Your task to perform on an android device: Show me the best rated coffee table on Ikea Image 0: 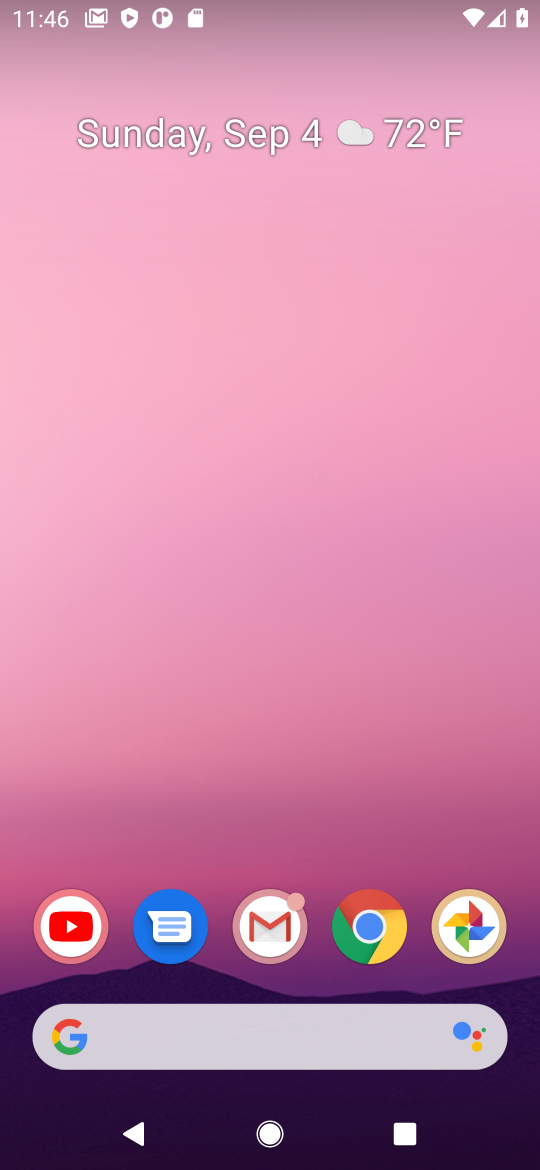
Step 0: press home button
Your task to perform on an android device: Show me the best rated coffee table on Ikea Image 1: 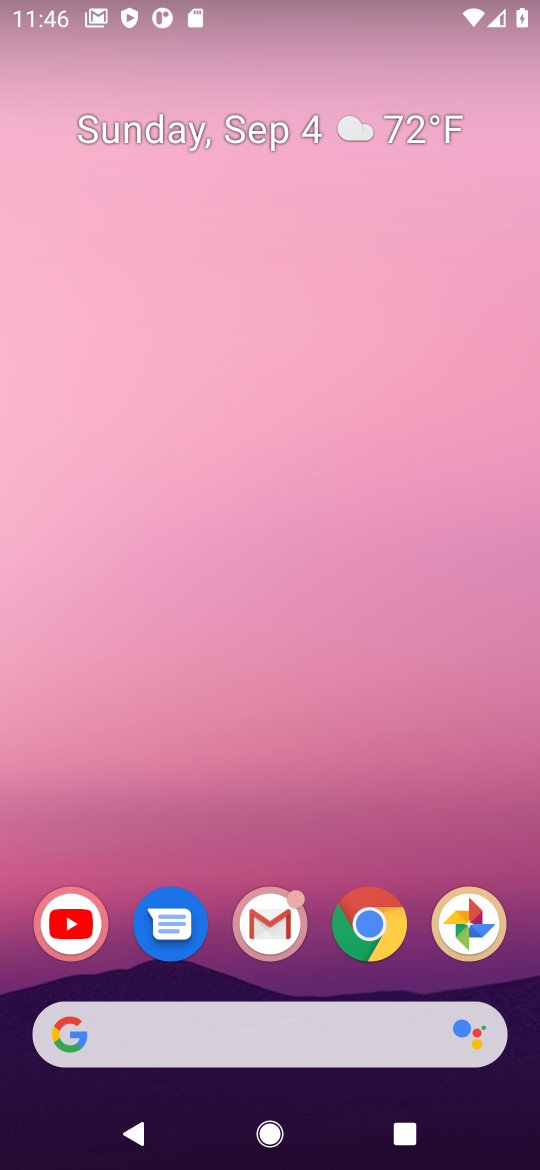
Step 1: drag from (323, 878) to (455, 808)
Your task to perform on an android device: Show me the best rated coffee table on Ikea Image 2: 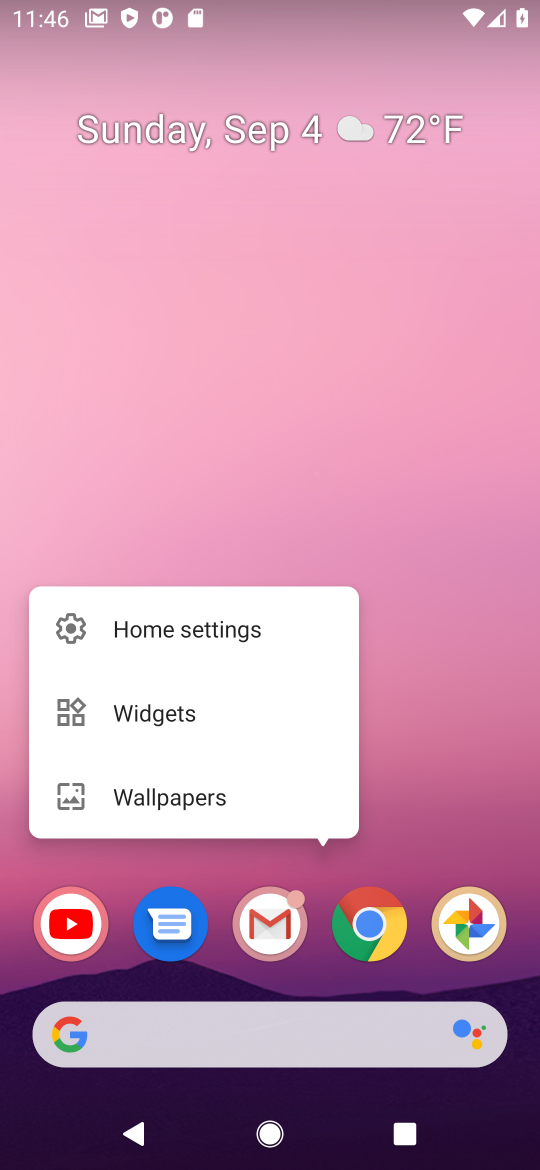
Step 2: drag from (415, 688) to (454, 0)
Your task to perform on an android device: Show me the best rated coffee table on Ikea Image 3: 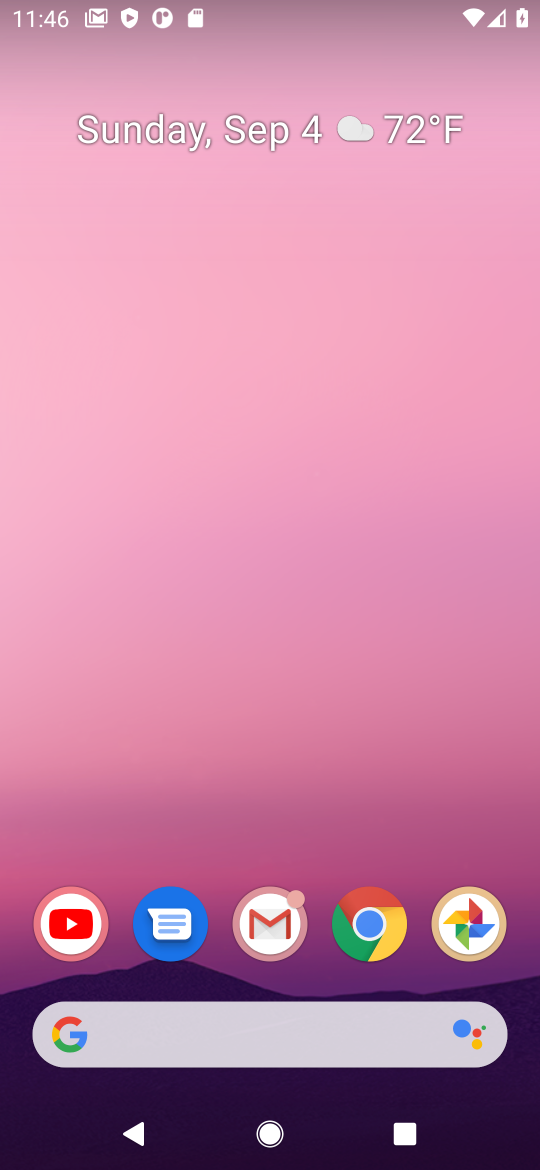
Step 3: drag from (385, 428) to (536, 0)
Your task to perform on an android device: Show me the best rated coffee table on Ikea Image 4: 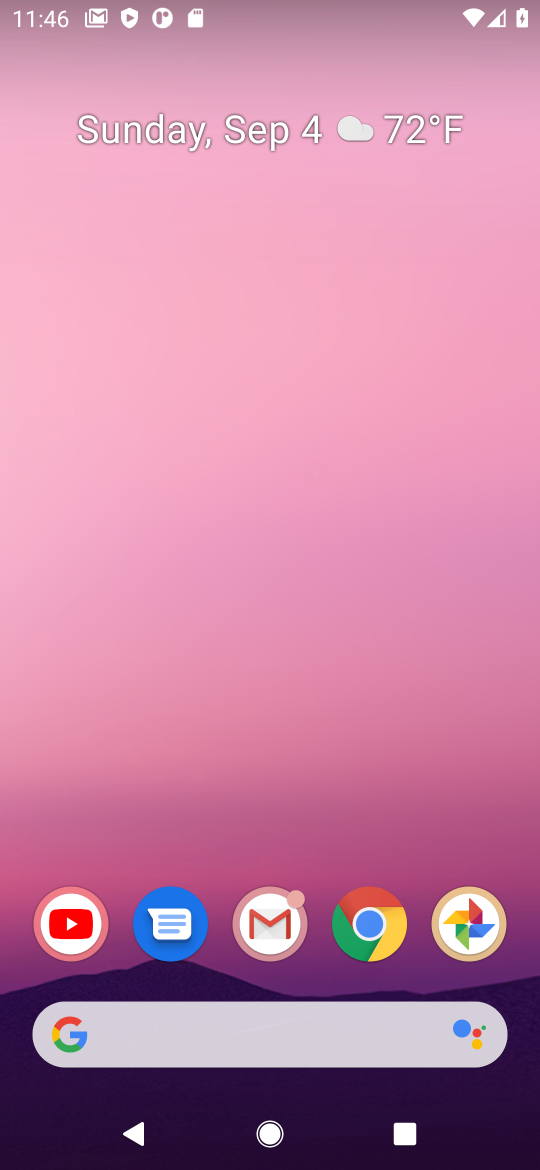
Step 4: drag from (327, 856) to (357, 1)
Your task to perform on an android device: Show me the best rated coffee table on Ikea Image 5: 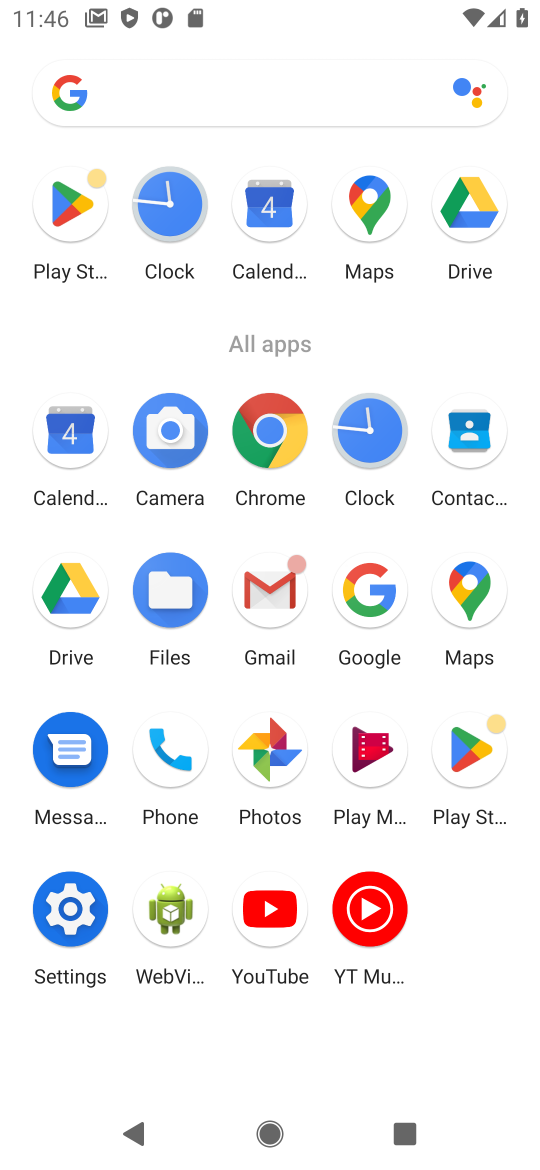
Step 5: click (265, 422)
Your task to perform on an android device: Show me the best rated coffee table on Ikea Image 6: 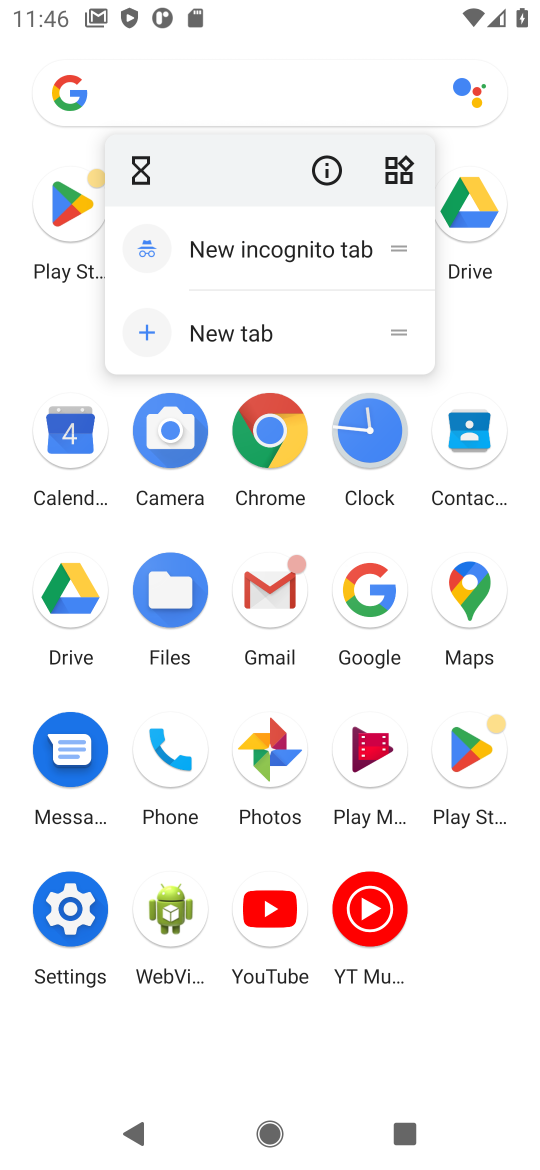
Step 6: click (265, 422)
Your task to perform on an android device: Show me the best rated coffee table on Ikea Image 7: 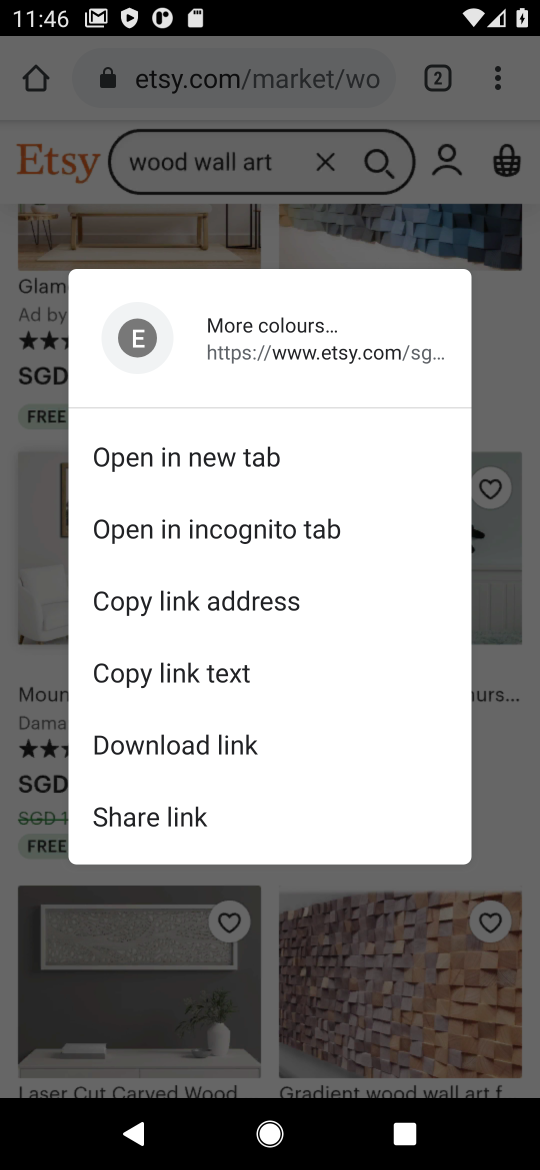
Step 7: click (302, 188)
Your task to perform on an android device: Show me the best rated coffee table on Ikea Image 8: 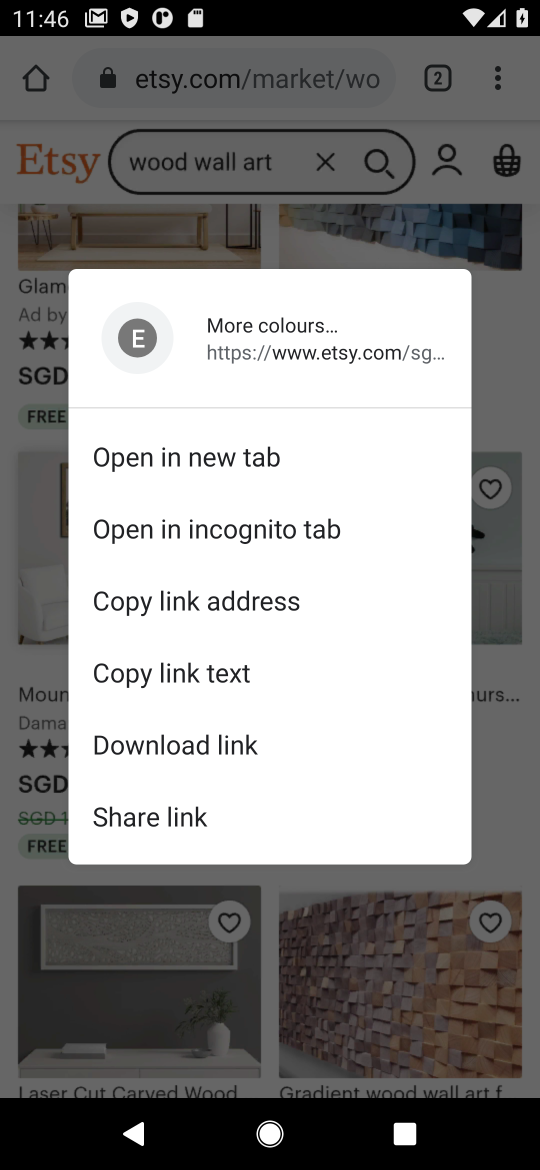
Step 8: click (435, 73)
Your task to perform on an android device: Show me the best rated coffee table on Ikea Image 9: 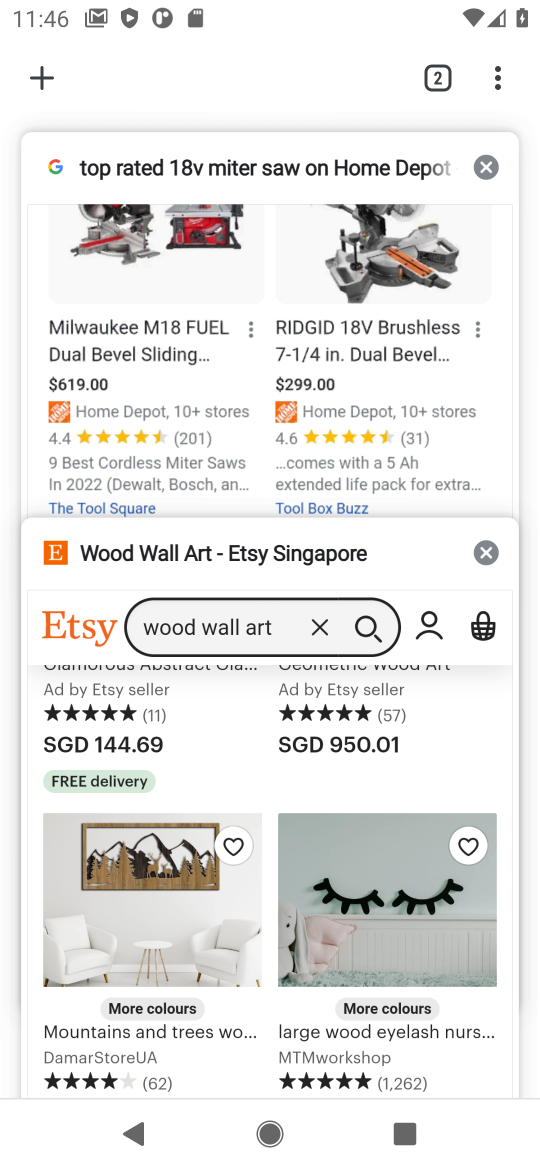
Step 9: click (486, 165)
Your task to perform on an android device: Show me the best rated coffee table on Ikea Image 10: 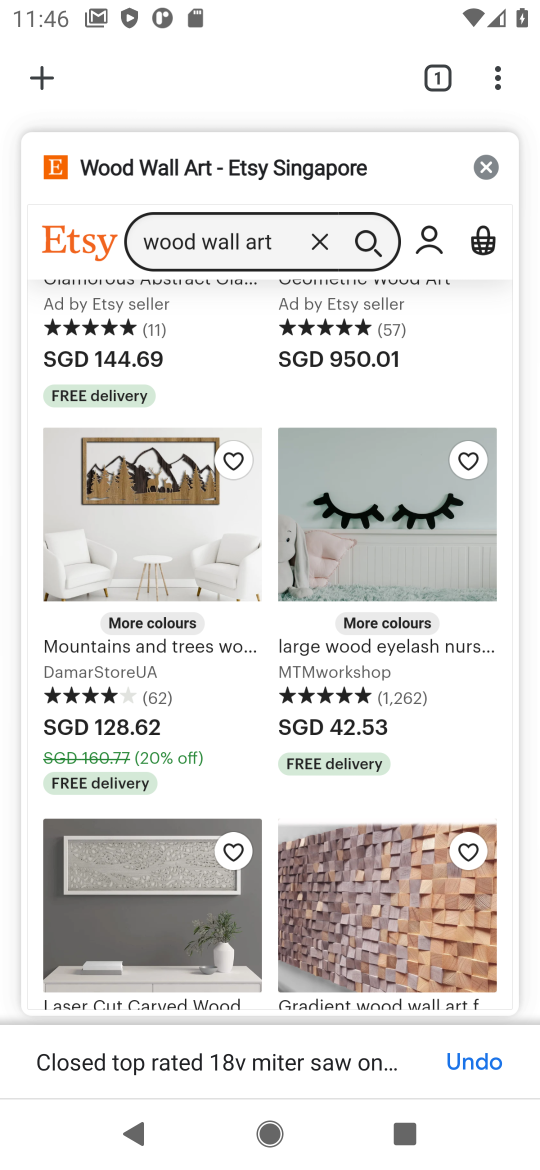
Step 10: click (486, 165)
Your task to perform on an android device: Show me the best rated coffee table on Ikea Image 11: 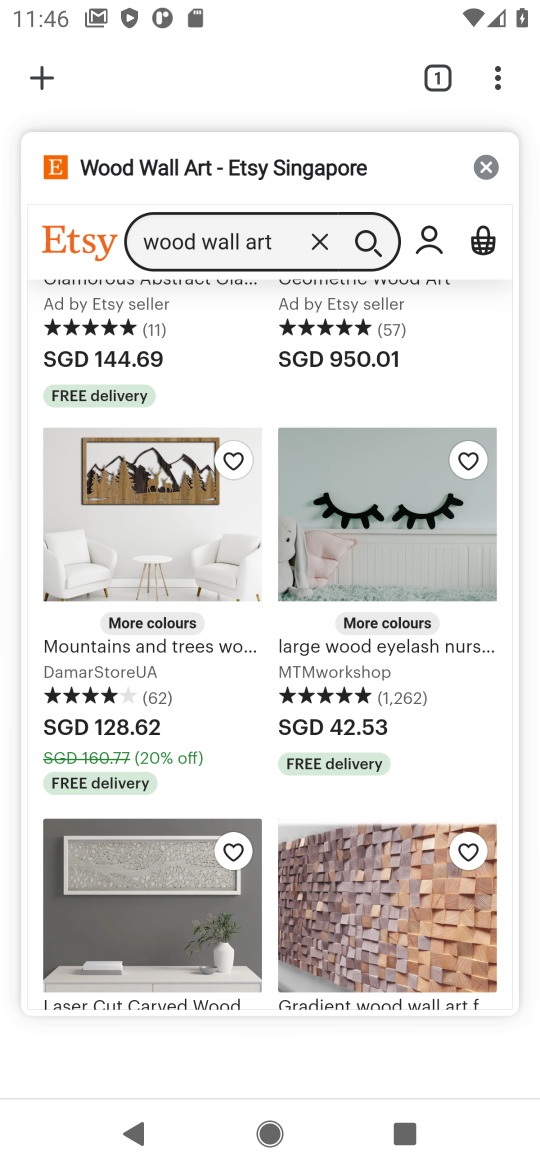
Step 11: click (486, 165)
Your task to perform on an android device: Show me the best rated coffee table on Ikea Image 12: 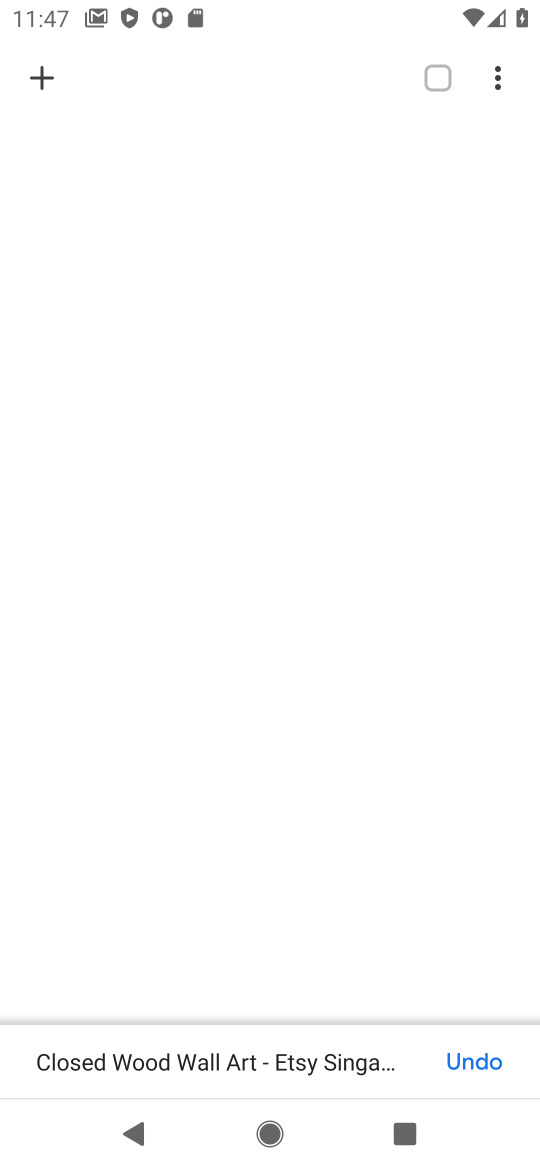
Step 12: click (54, 77)
Your task to perform on an android device: Show me the best rated coffee table on Ikea Image 13: 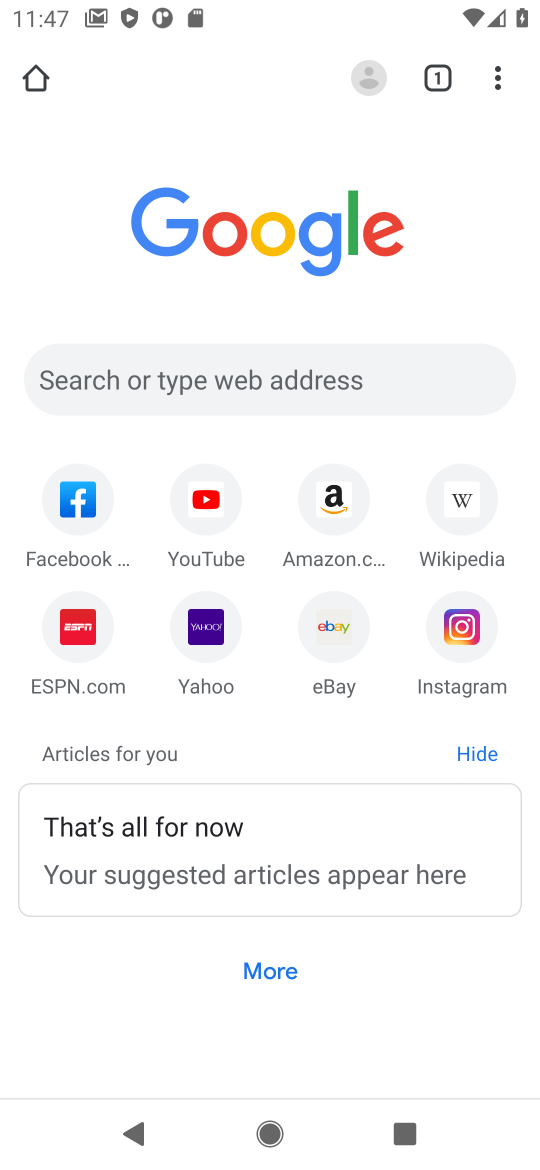
Step 13: click (120, 384)
Your task to perform on an android device: Show me the best rated coffee table on Ikea Image 14: 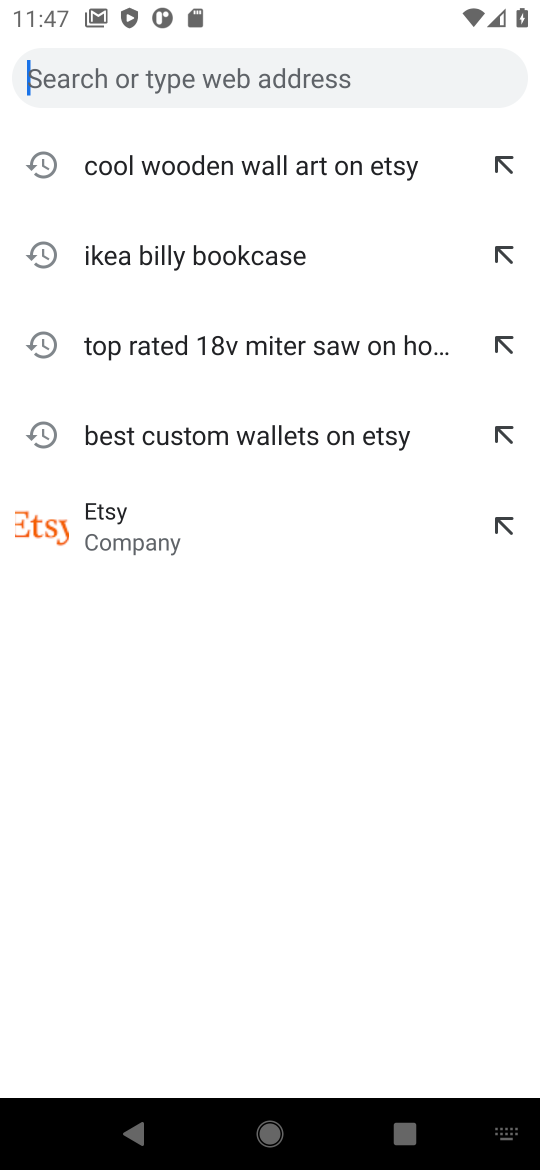
Step 14: type "best rated coffee table on Ikea"
Your task to perform on an android device: Show me the best rated coffee table on Ikea Image 15: 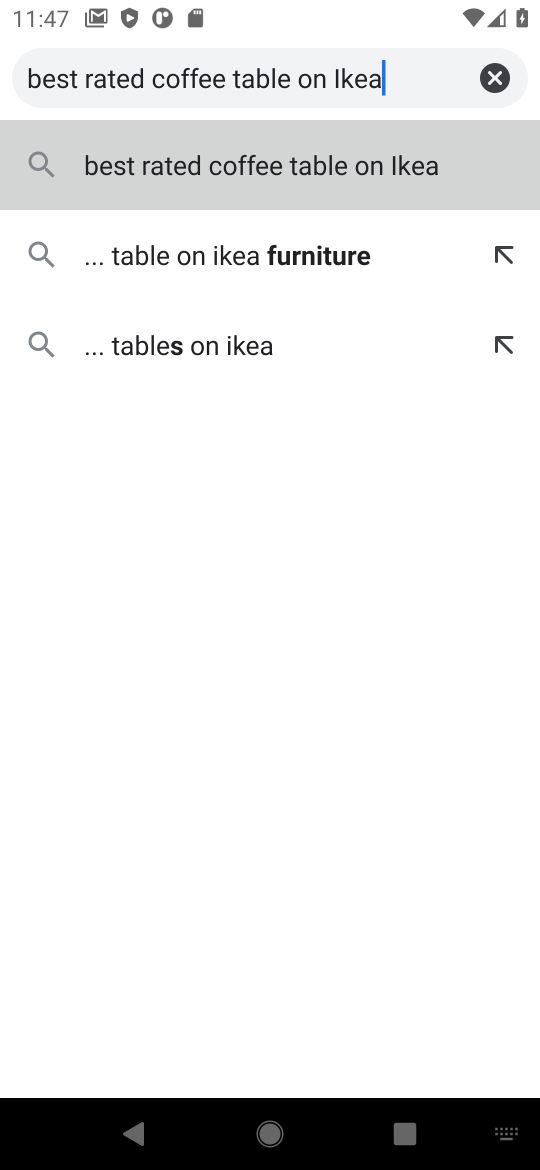
Step 15: click (284, 169)
Your task to perform on an android device: Show me the best rated coffee table on Ikea Image 16: 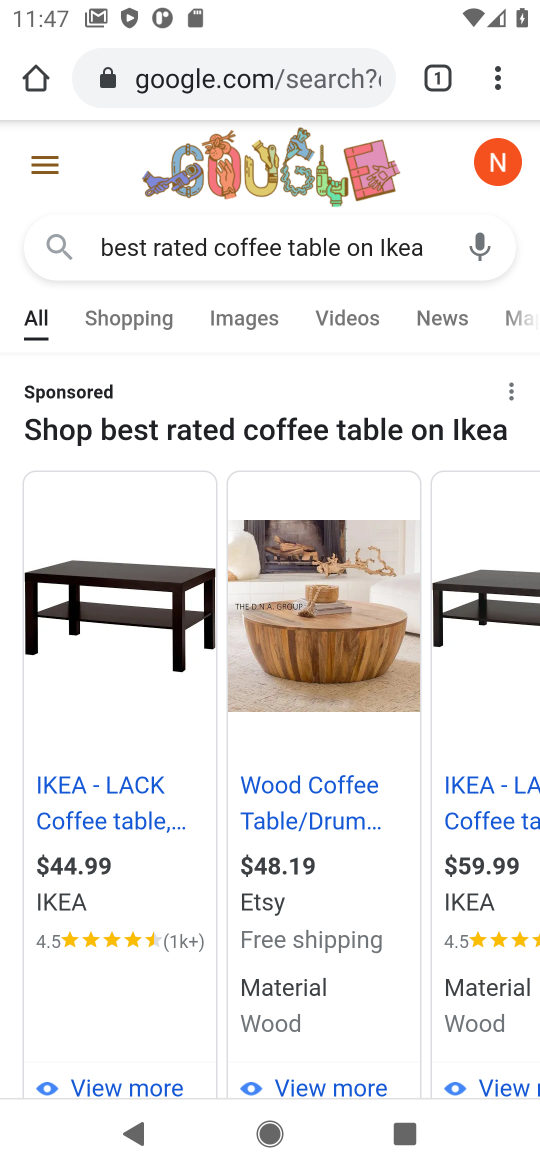
Step 16: drag from (212, 920) to (274, 194)
Your task to perform on an android device: Show me the best rated coffee table on Ikea Image 17: 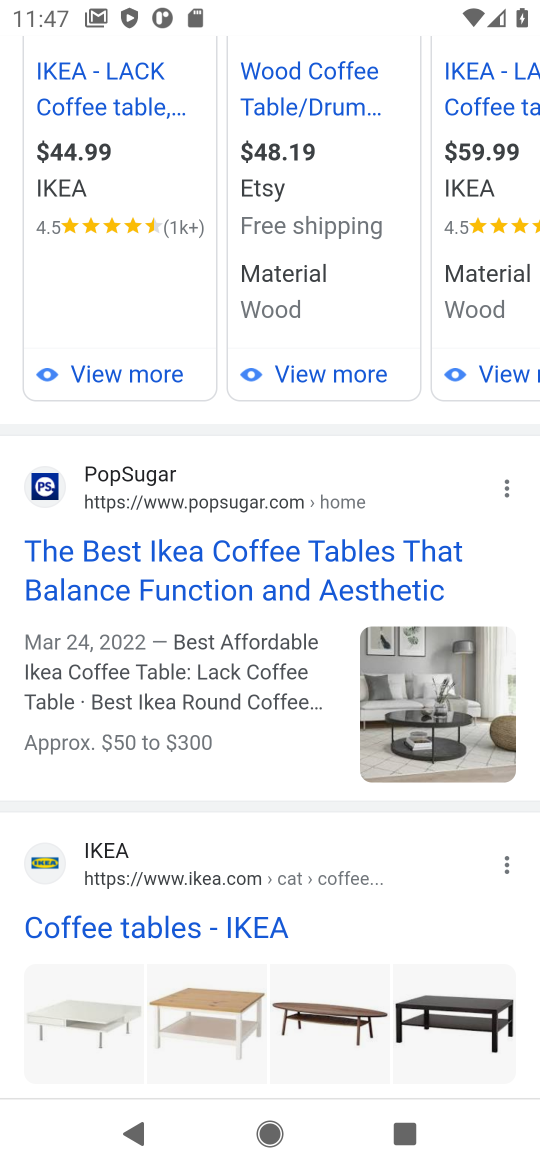
Step 17: click (165, 928)
Your task to perform on an android device: Show me the best rated coffee table on Ikea Image 18: 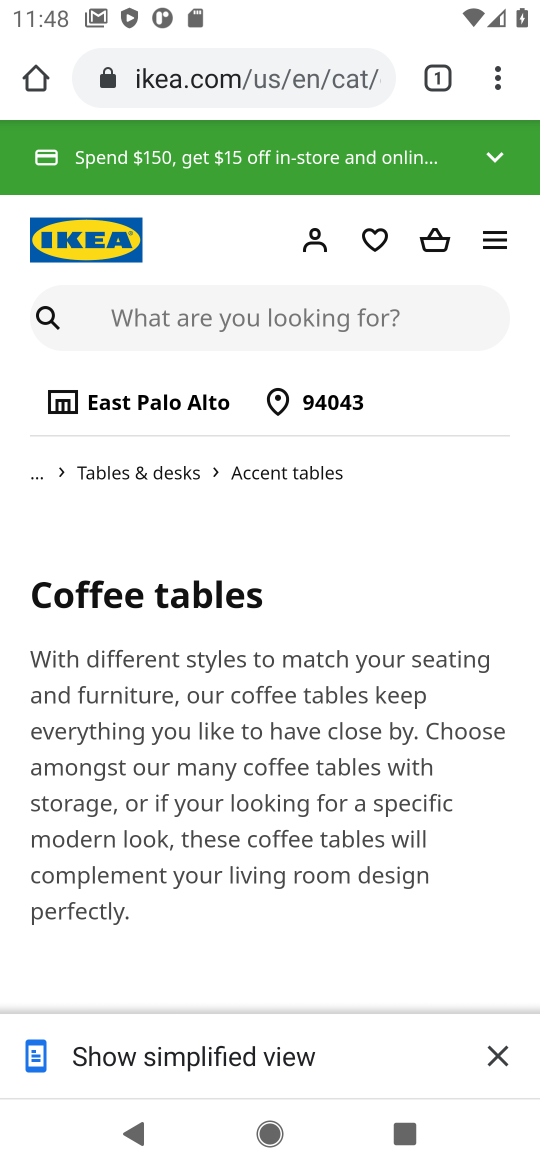
Step 18: drag from (317, 910) to (328, 74)
Your task to perform on an android device: Show me the best rated coffee table on Ikea Image 19: 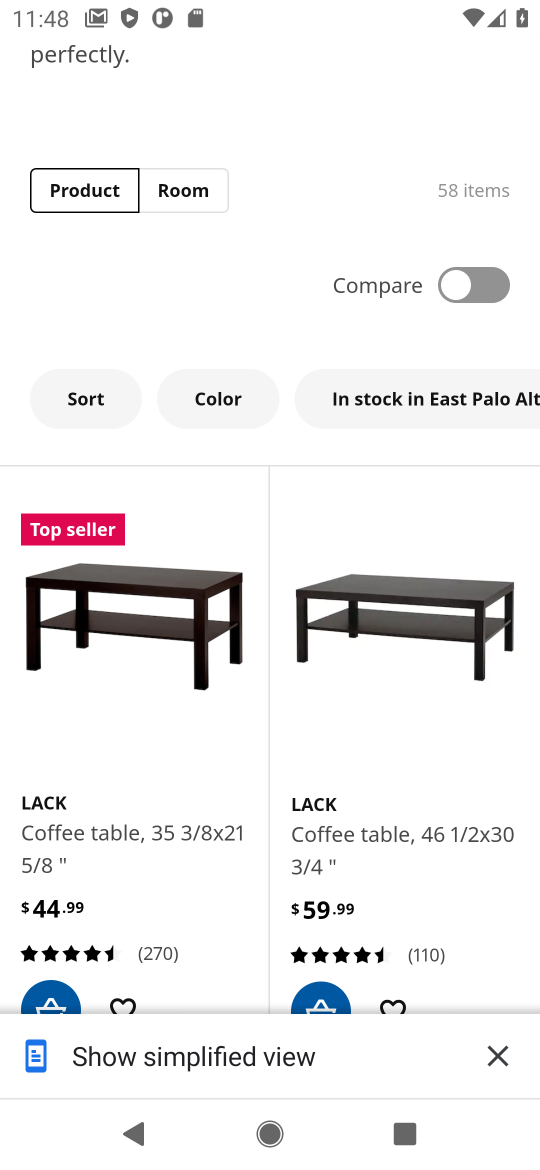
Step 19: drag from (253, 829) to (277, 124)
Your task to perform on an android device: Show me the best rated coffee table on Ikea Image 20: 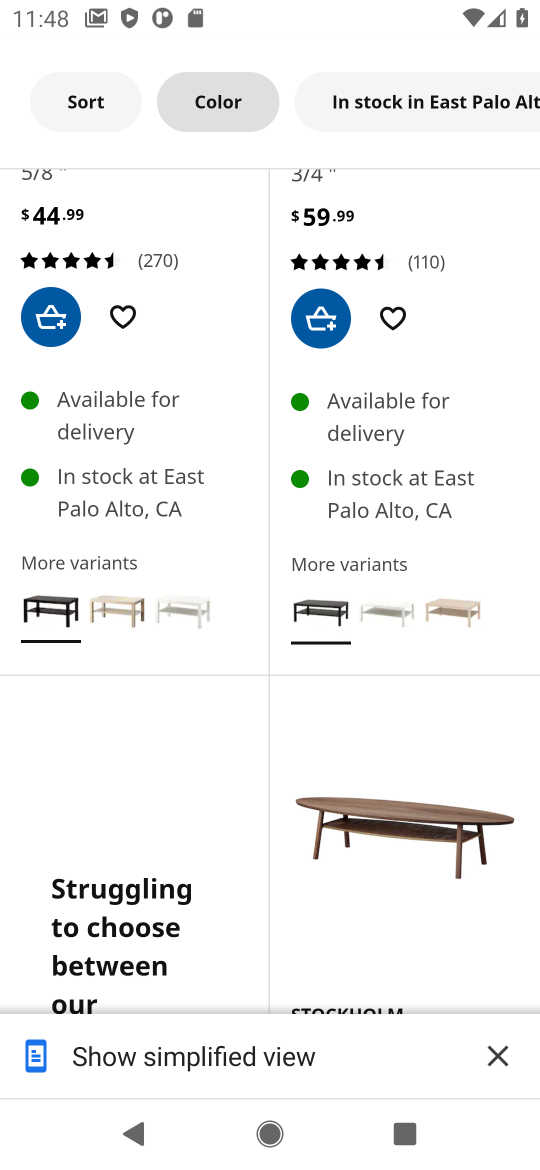
Step 20: drag from (285, 725) to (316, 301)
Your task to perform on an android device: Show me the best rated coffee table on Ikea Image 21: 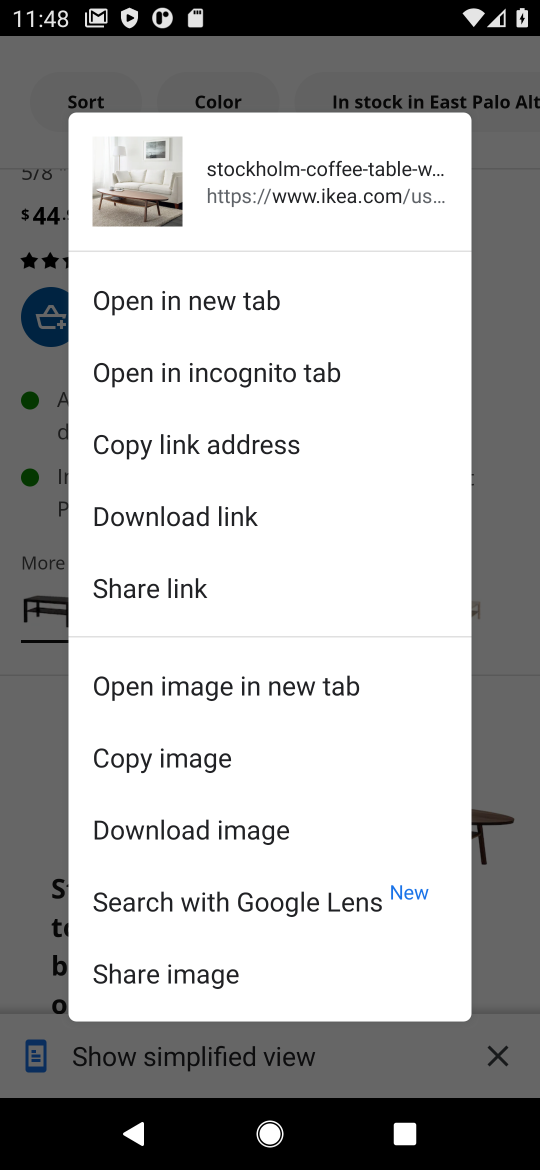
Step 21: click (21, 751)
Your task to perform on an android device: Show me the best rated coffee table on Ikea Image 22: 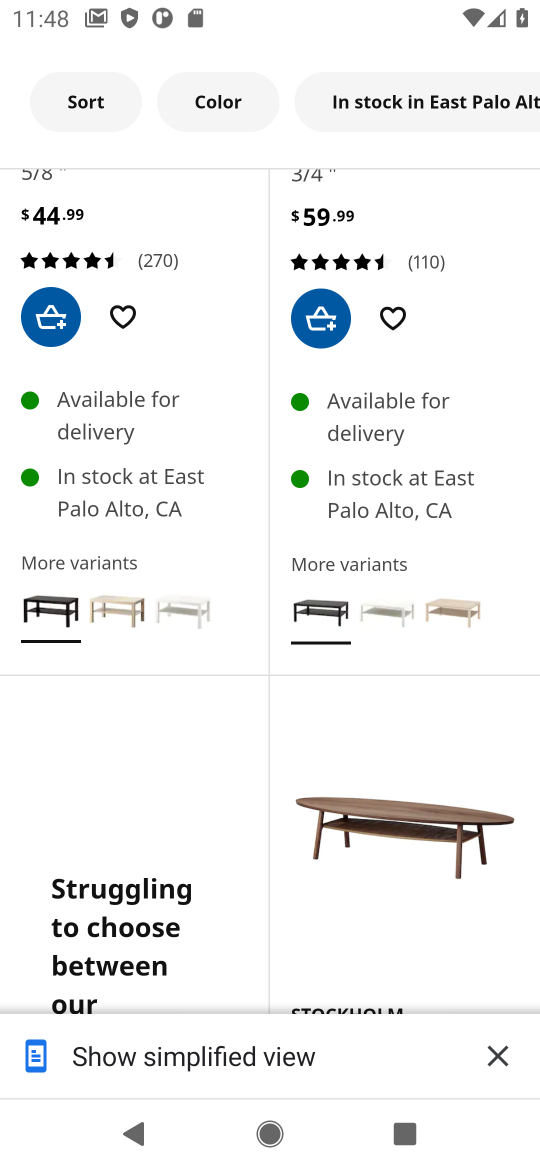
Step 22: task complete